Your task to perform on an android device: Search for seafood restaurants on Google Maps Image 0: 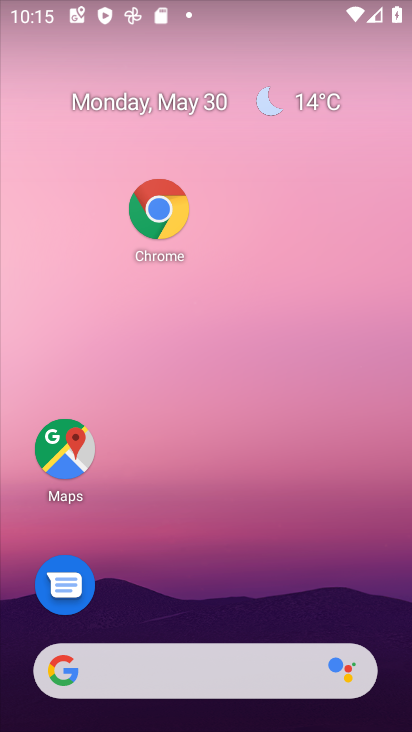
Step 0: click (285, 116)
Your task to perform on an android device: Search for seafood restaurants on Google Maps Image 1: 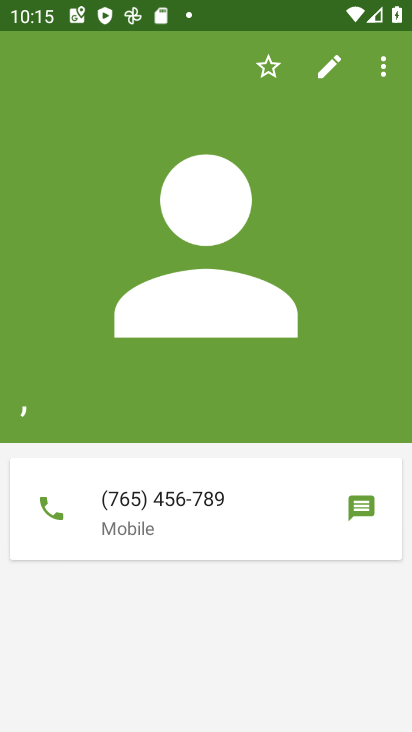
Step 1: press home button
Your task to perform on an android device: Search for seafood restaurants on Google Maps Image 2: 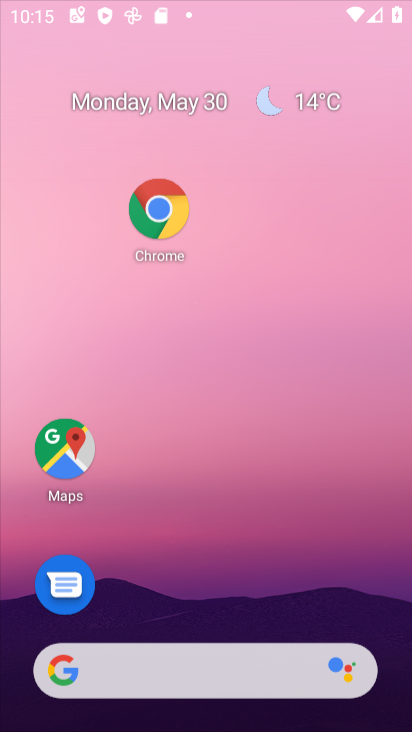
Step 2: drag from (250, 350) to (272, 115)
Your task to perform on an android device: Search for seafood restaurants on Google Maps Image 3: 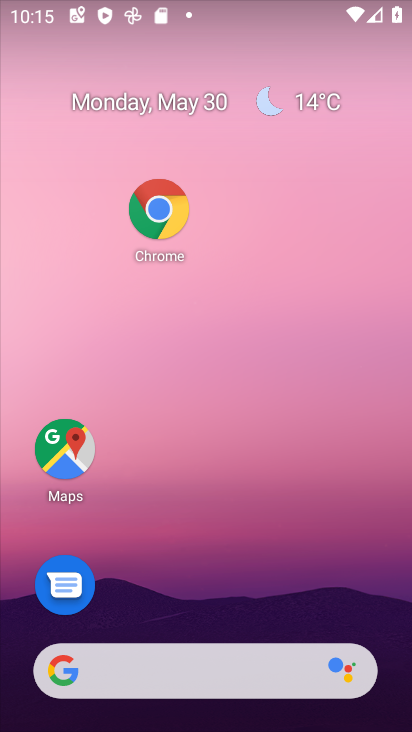
Step 3: click (57, 448)
Your task to perform on an android device: Search for seafood restaurants on Google Maps Image 4: 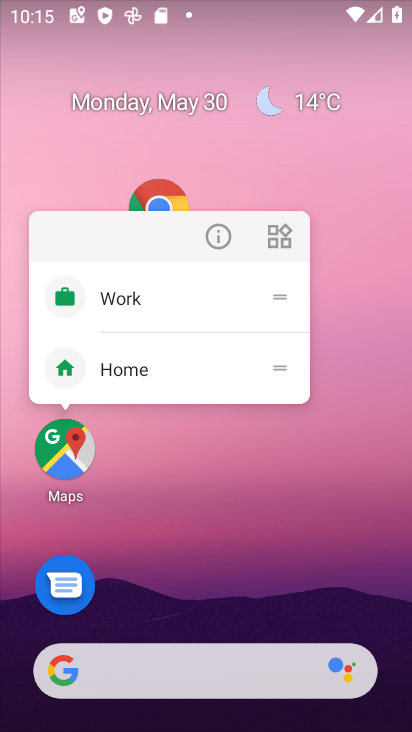
Step 4: click (221, 242)
Your task to perform on an android device: Search for seafood restaurants on Google Maps Image 5: 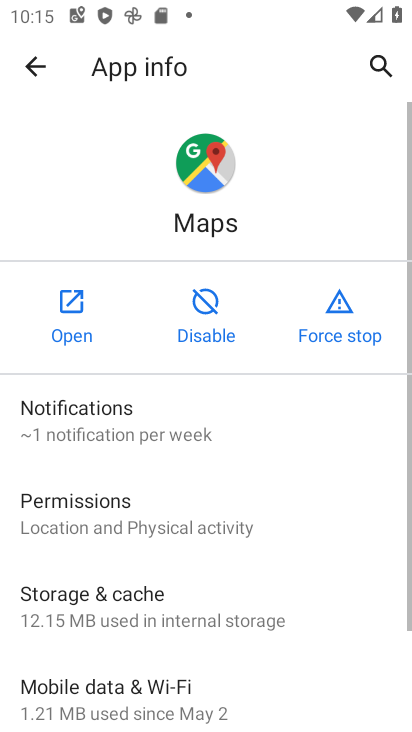
Step 5: click (89, 312)
Your task to perform on an android device: Search for seafood restaurants on Google Maps Image 6: 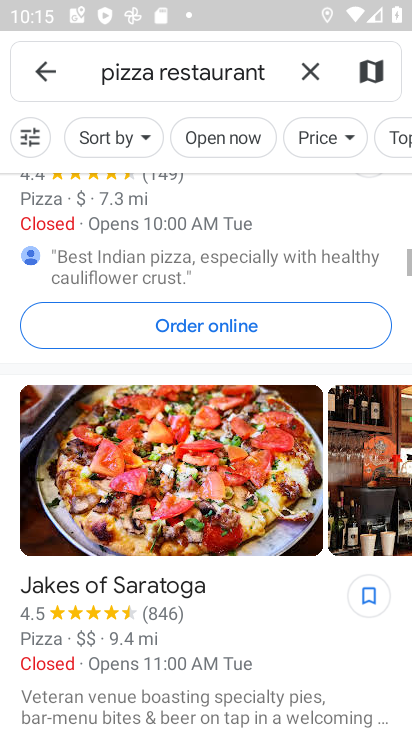
Step 6: click (313, 75)
Your task to perform on an android device: Search for seafood restaurants on Google Maps Image 7: 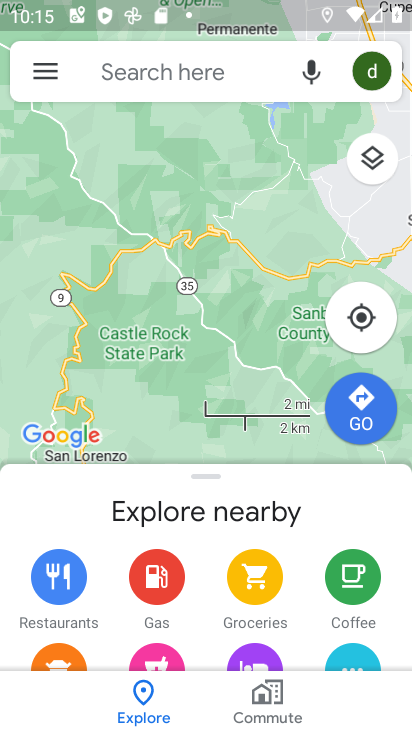
Step 7: click (140, 76)
Your task to perform on an android device: Search for seafood restaurants on Google Maps Image 8: 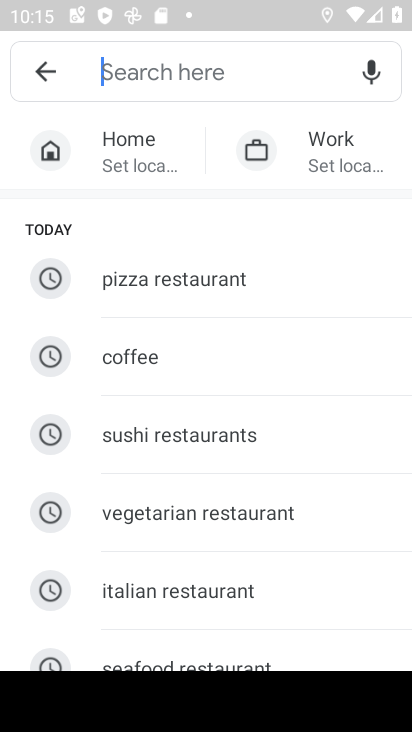
Step 8: drag from (231, 556) to (252, 226)
Your task to perform on an android device: Search for seafood restaurants on Google Maps Image 9: 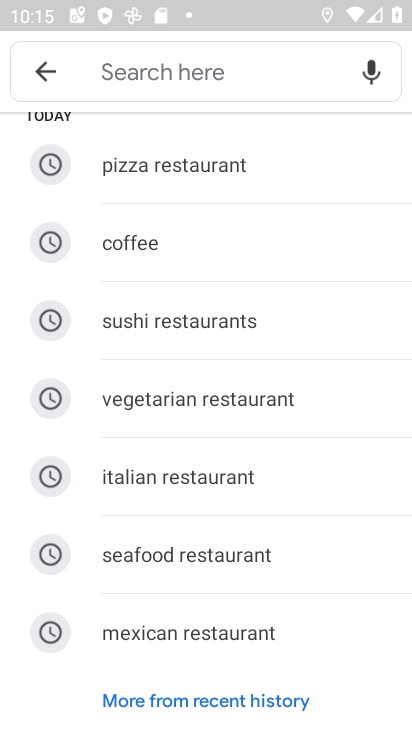
Step 9: click (163, 554)
Your task to perform on an android device: Search for seafood restaurants on Google Maps Image 10: 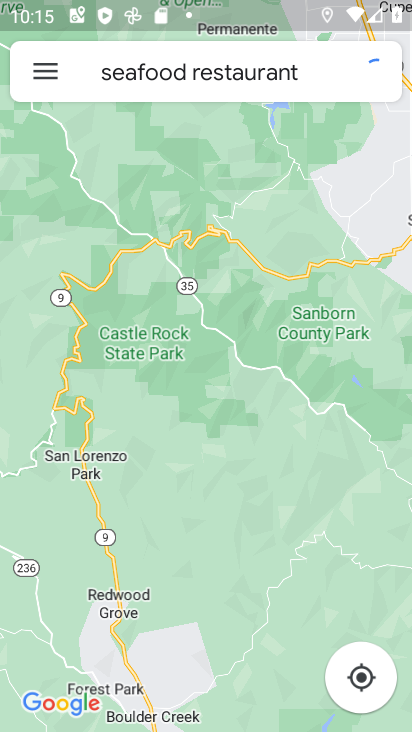
Step 10: task complete